Your task to perform on an android device: refresh tabs in the chrome app Image 0: 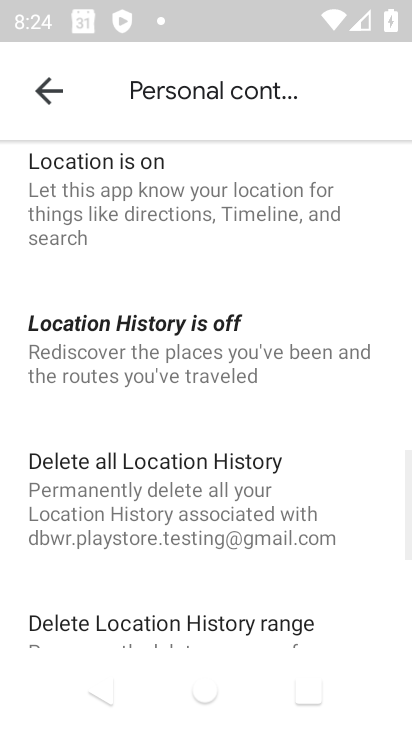
Step 0: press home button
Your task to perform on an android device: refresh tabs in the chrome app Image 1: 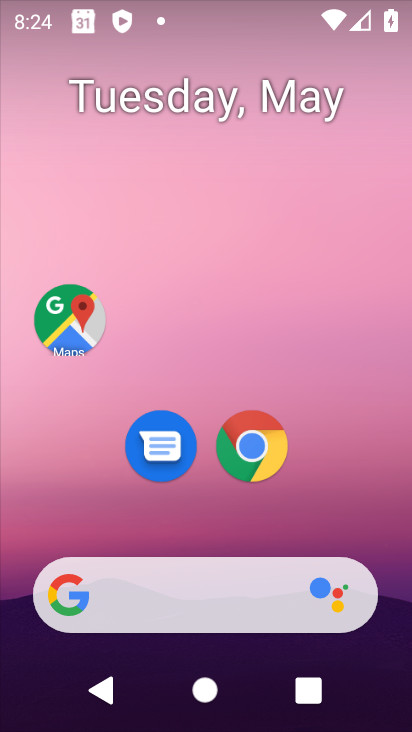
Step 1: click (248, 455)
Your task to perform on an android device: refresh tabs in the chrome app Image 2: 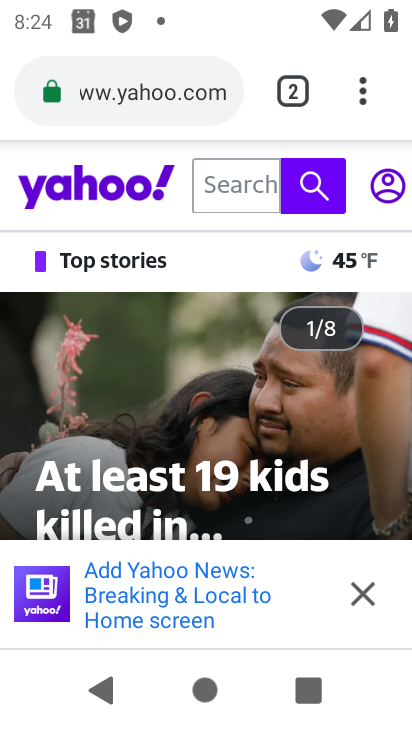
Step 2: click (363, 97)
Your task to perform on an android device: refresh tabs in the chrome app Image 3: 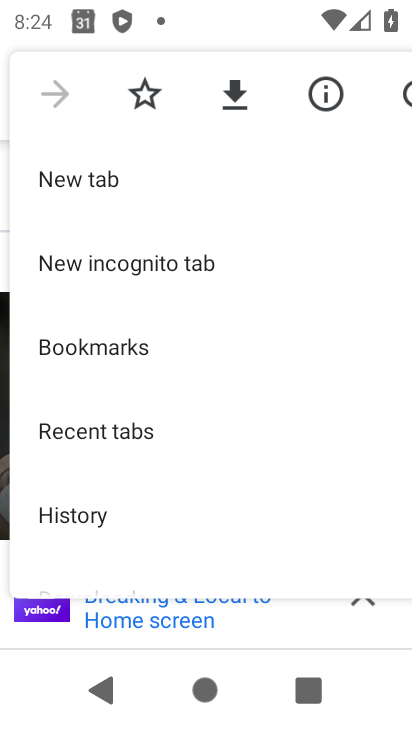
Step 3: click (410, 95)
Your task to perform on an android device: refresh tabs in the chrome app Image 4: 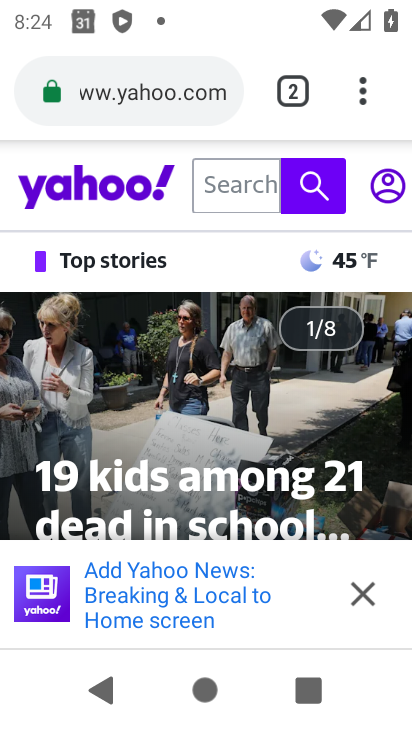
Step 4: task complete